Your task to perform on an android device: Is it going to rain today? Image 0: 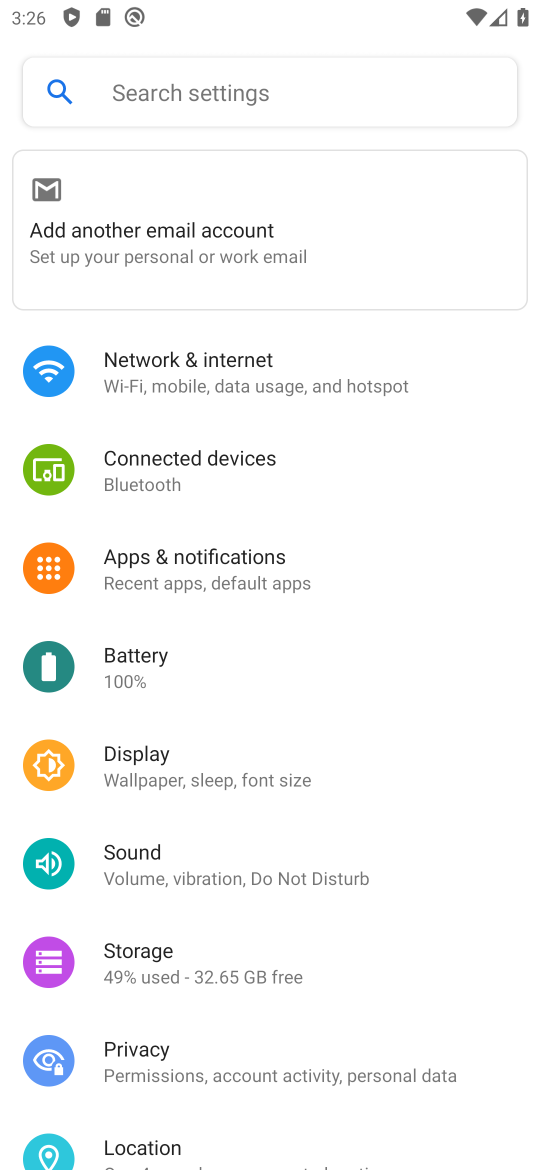
Step 0: press back button
Your task to perform on an android device: Is it going to rain today? Image 1: 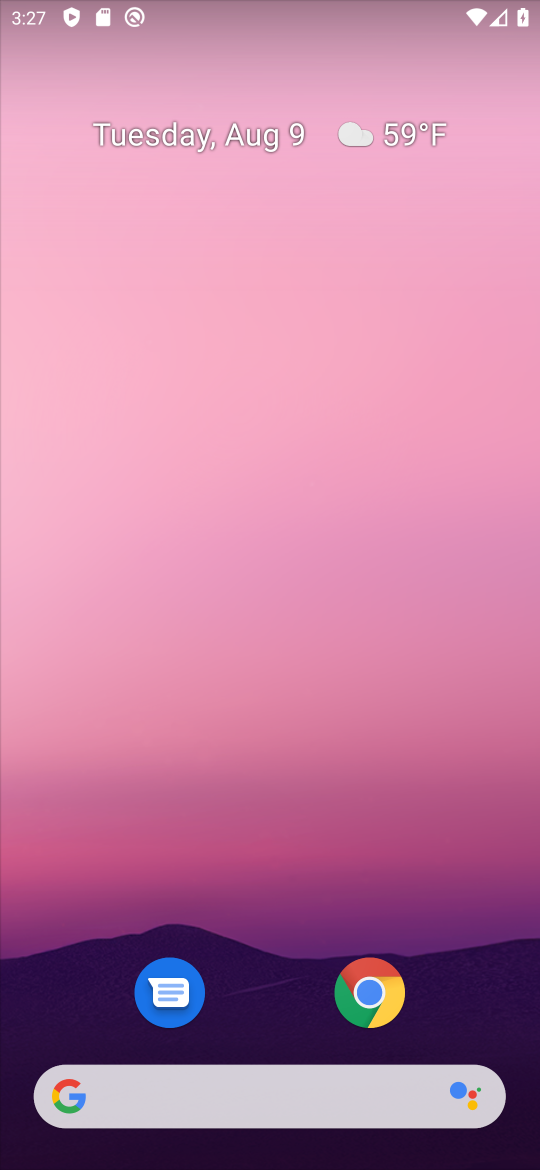
Step 1: click (197, 1082)
Your task to perform on an android device: Is it going to rain today? Image 2: 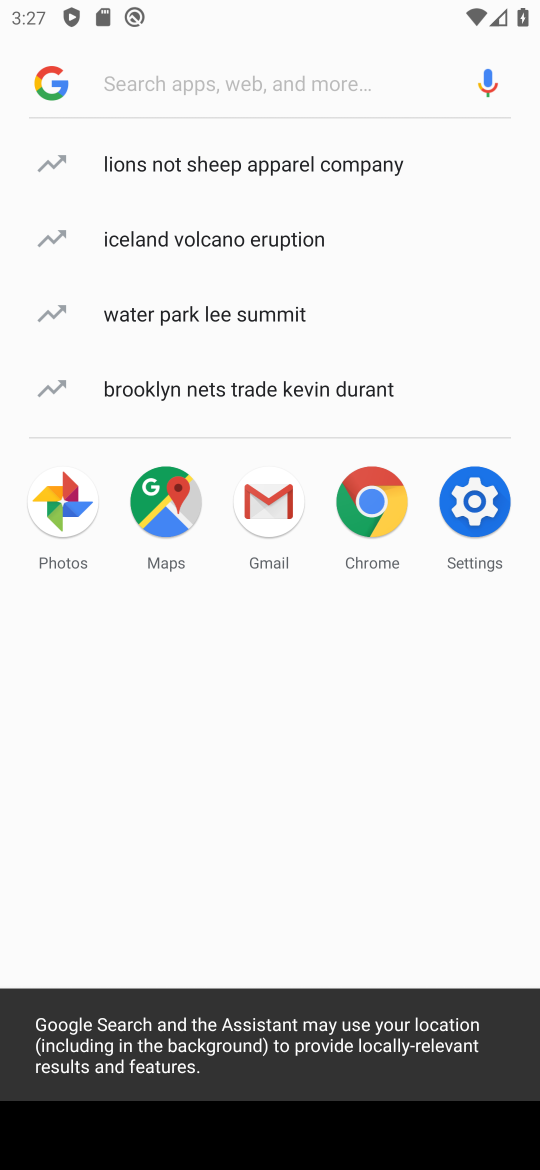
Step 2: click (186, 87)
Your task to perform on an android device: Is it going to rain today? Image 3: 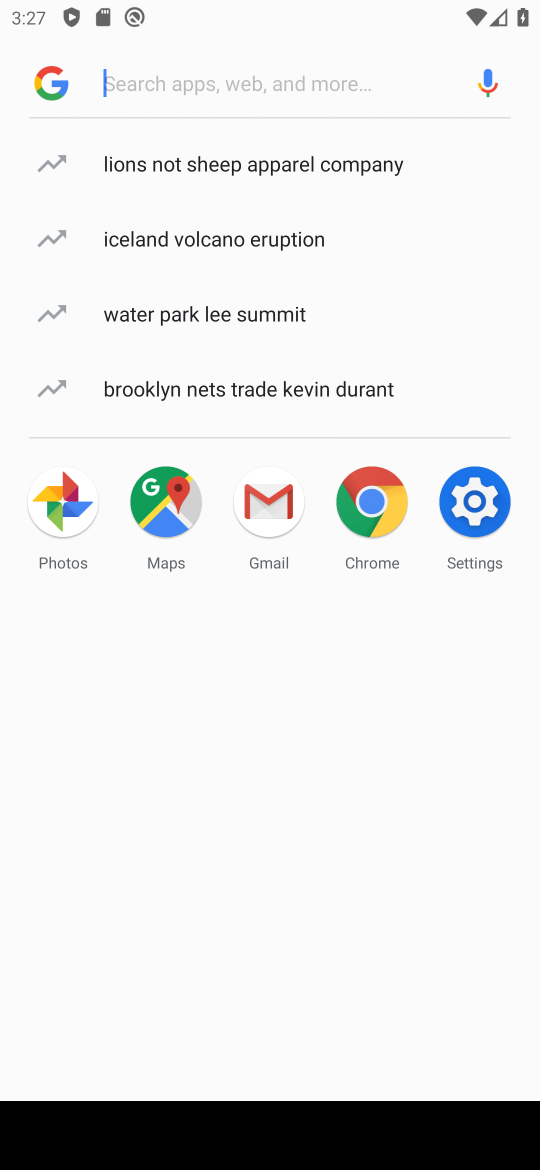
Step 3: type "weather today"
Your task to perform on an android device: Is it going to rain today? Image 4: 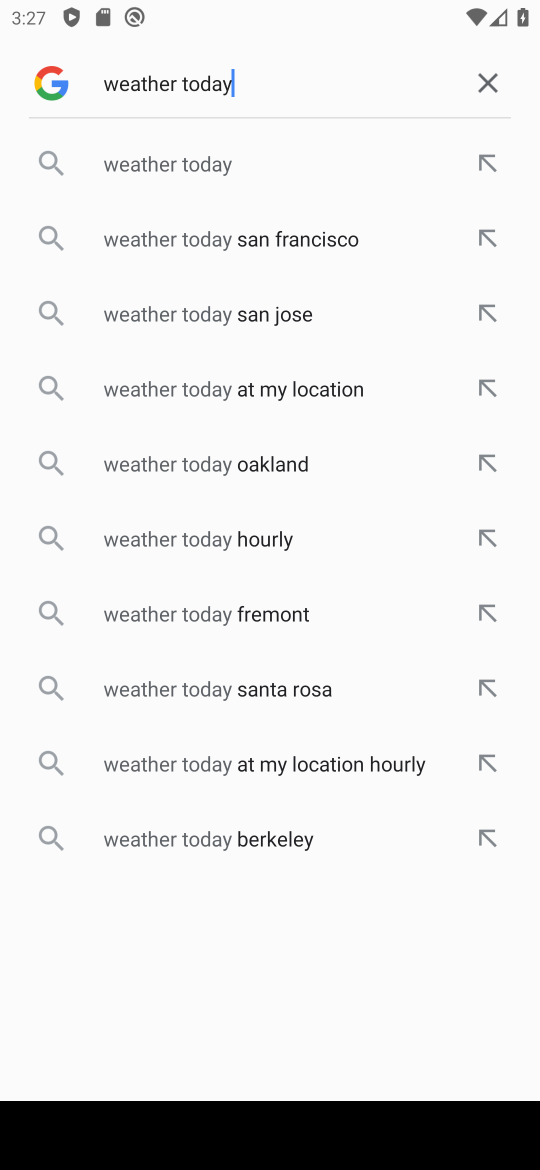
Step 4: click (155, 157)
Your task to perform on an android device: Is it going to rain today? Image 5: 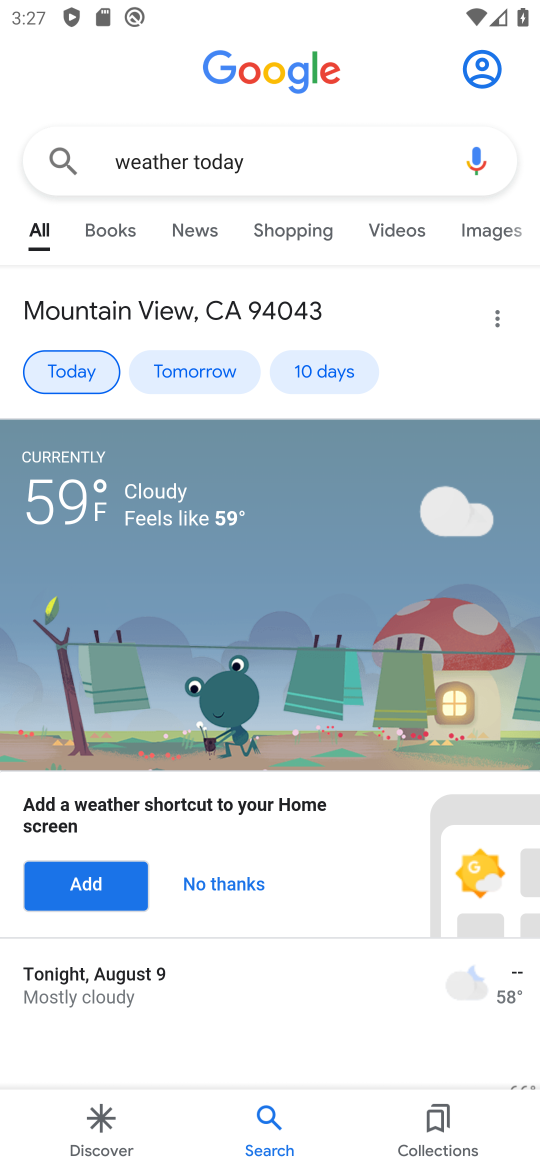
Step 5: task complete